Your task to perform on an android device: Open Android settings Image 0: 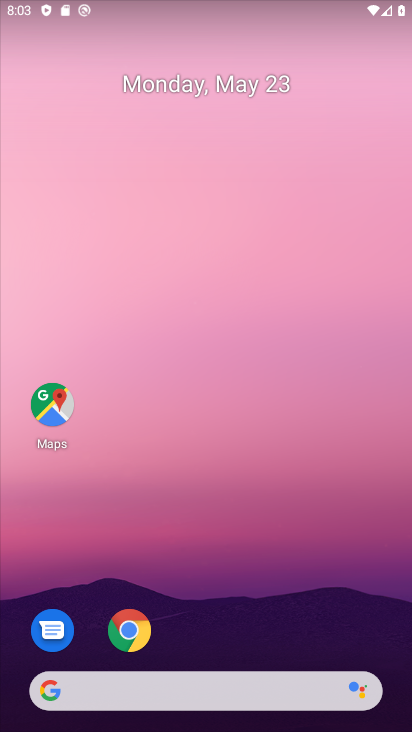
Step 0: drag from (197, 641) to (235, 216)
Your task to perform on an android device: Open Android settings Image 1: 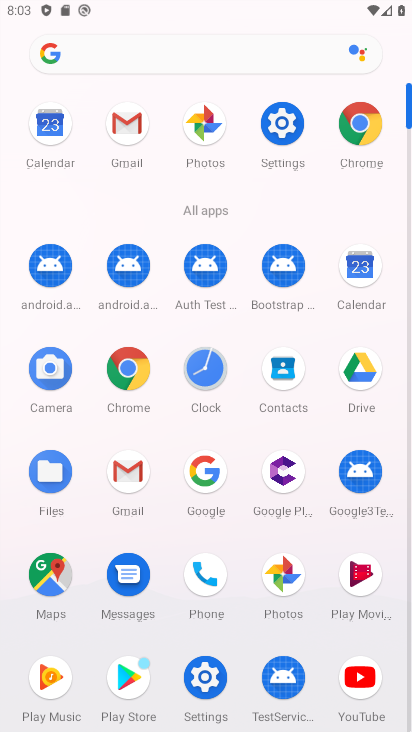
Step 1: click (278, 138)
Your task to perform on an android device: Open Android settings Image 2: 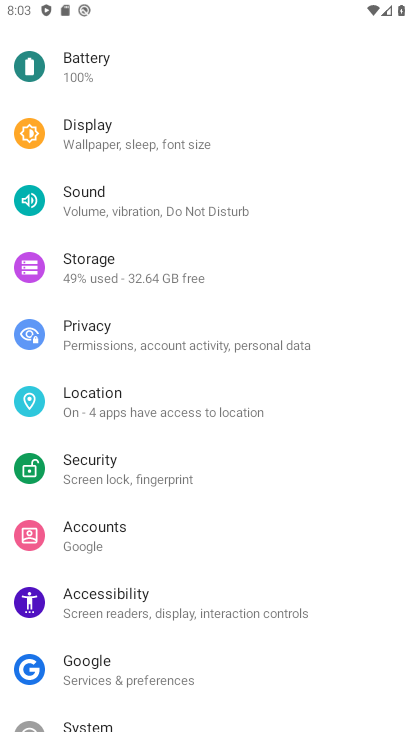
Step 2: drag from (169, 641) to (154, 175)
Your task to perform on an android device: Open Android settings Image 3: 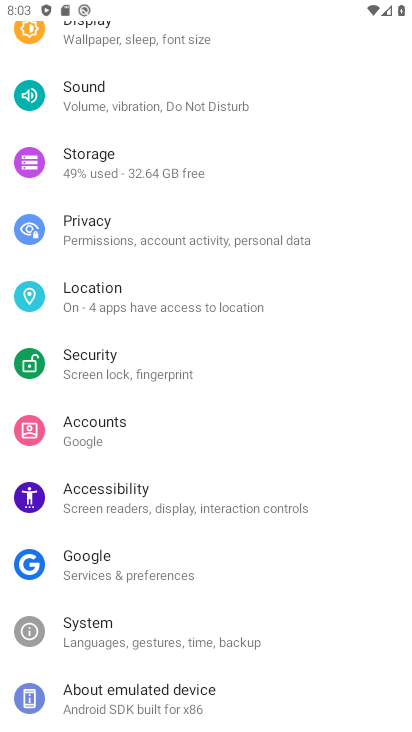
Step 3: click (131, 710)
Your task to perform on an android device: Open Android settings Image 4: 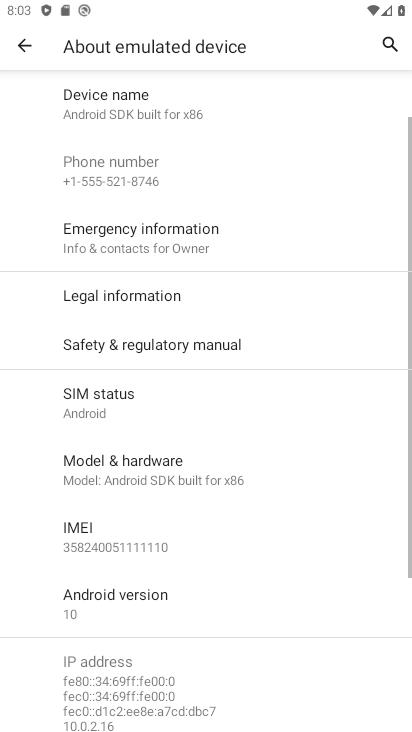
Step 4: drag from (128, 678) to (277, 385)
Your task to perform on an android device: Open Android settings Image 5: 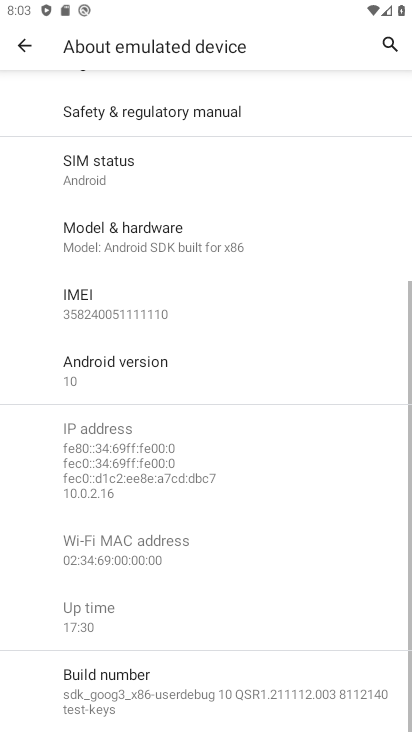
Step 5: click (109, 375)
Your task to perform on an android device: Open Android settings Image 6: 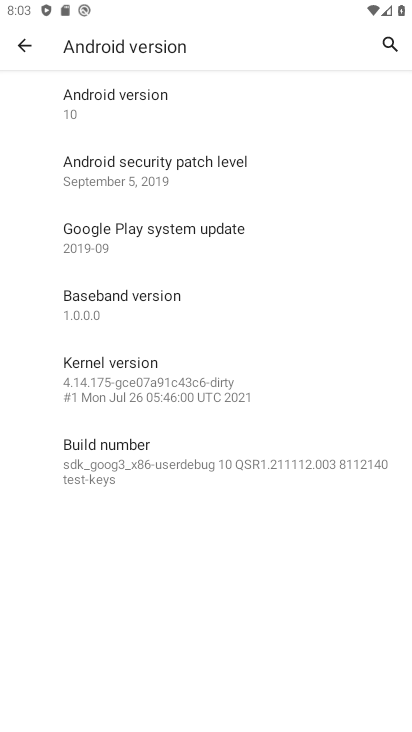
Step 6: task complete